Your task to perform on an android device: move a message to another label in the gmail app Image 0: 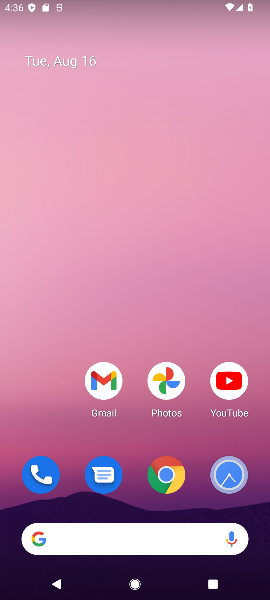
Step 0: drag from (194, 438) to (24, 54)
Your task to perform on an android device: move a message to another label in the gmail app Image 1: 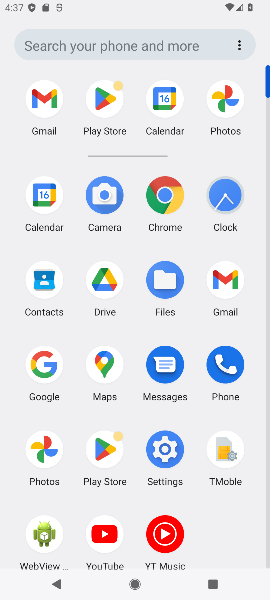
Step 1: click (215, 277)
Your task to perform on an android device: move a message to another label in the gmail app Image 2: 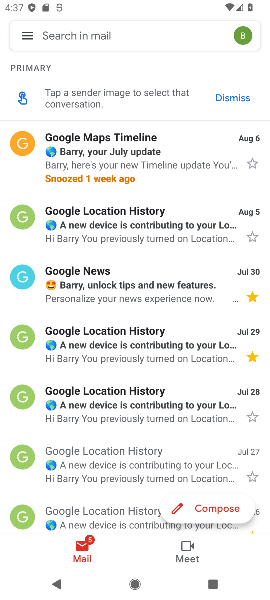
Step 2: task complete